Your task to perform on an android device: Go to Amazon Image 0: 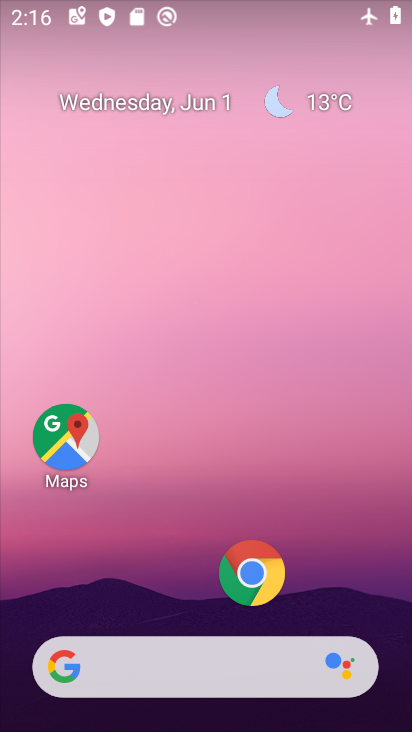
Step 0: click (246, 561)
Your task to perform on an android device: Go to Amazon Image 1: 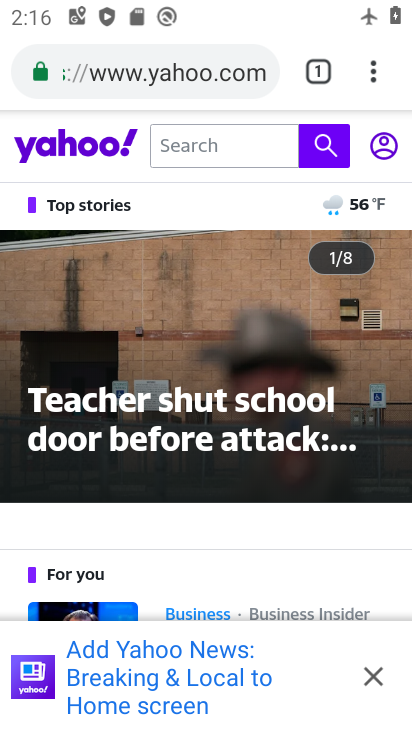
Step 1: click (305, 72)
Your task to perform on an android device: Go to Amazon Image 2: 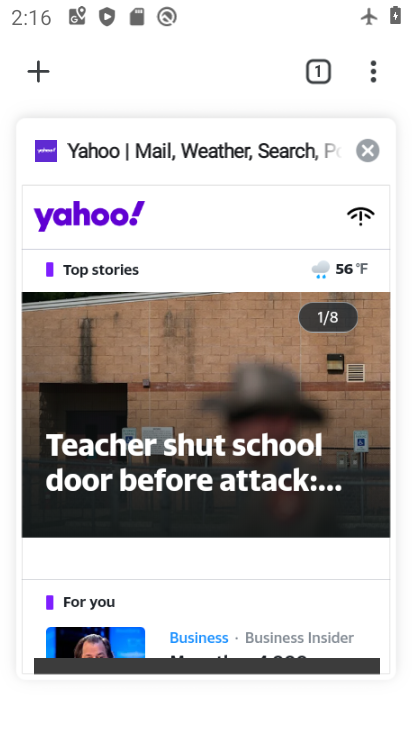
Step 2: click (27, 79)
Your task to perform on an android device: Go to Amazon Image 3: 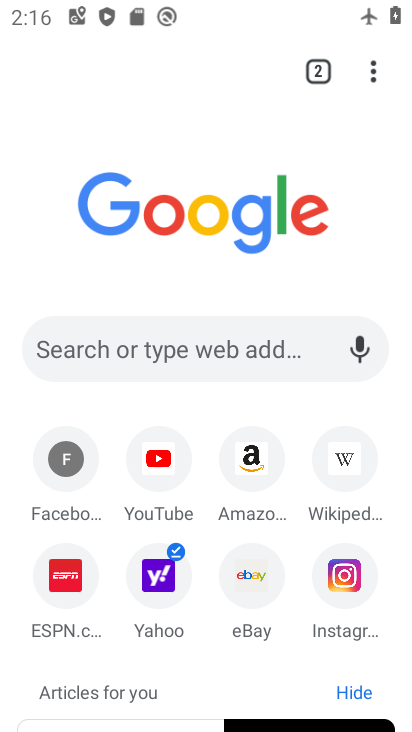
Step 3: click (242, 448)
Your task to perform on an android device: Go to Amazon Image 4: 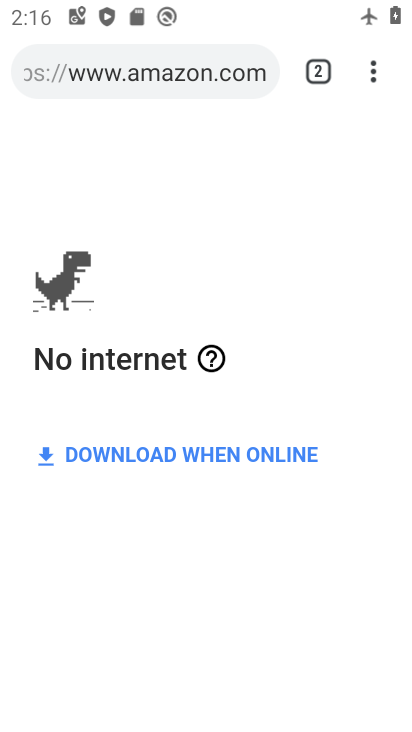
Step 4: task complete